Your task to perform on an android device: Open Android settings Image 0: 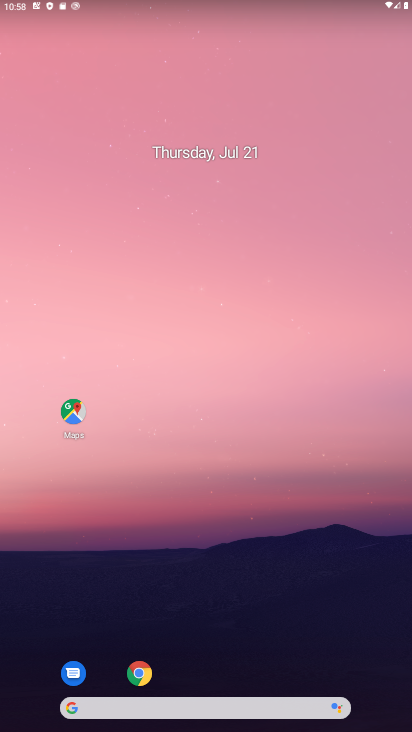
Step 0: drag from (207, 677) to (207, 413)
Your task to perform on an android device: Open Android settings Image 1: 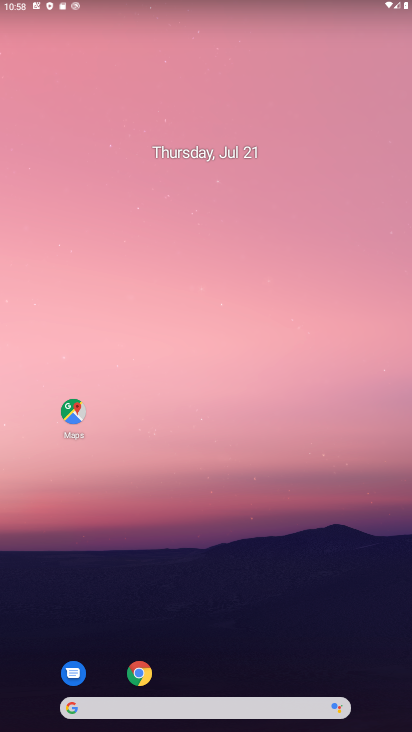
Step 1: drag from (212, 651) to (201, 228)
Your task to perform on an android device: Open Android settings Image 2: 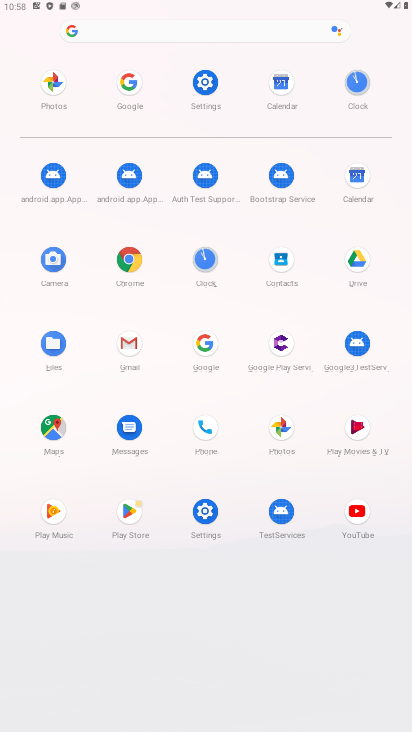
Step 2: click (200, 82)
Your task to perform on an android device: Open Android settings Image 3: 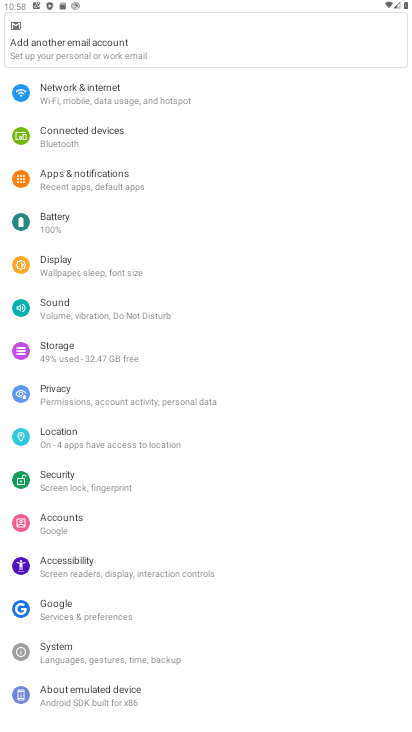
Step 3: task complete